Your task to perform on an android device: toggle location history Image 0: 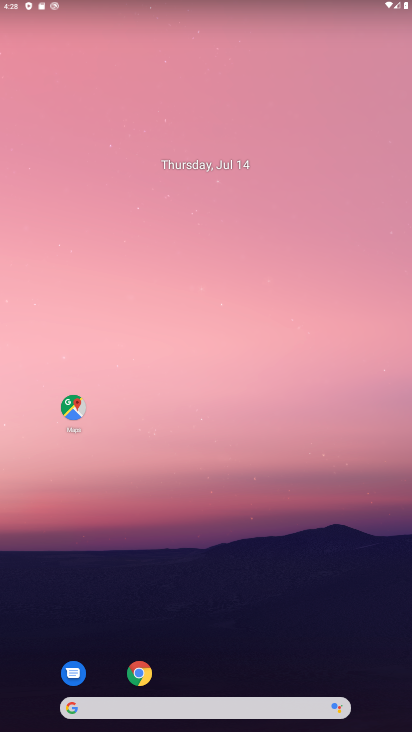
Step 0: drag from (210, 693) to (266, 144)
Your task to perform on an android device: toggle location history Image 1: 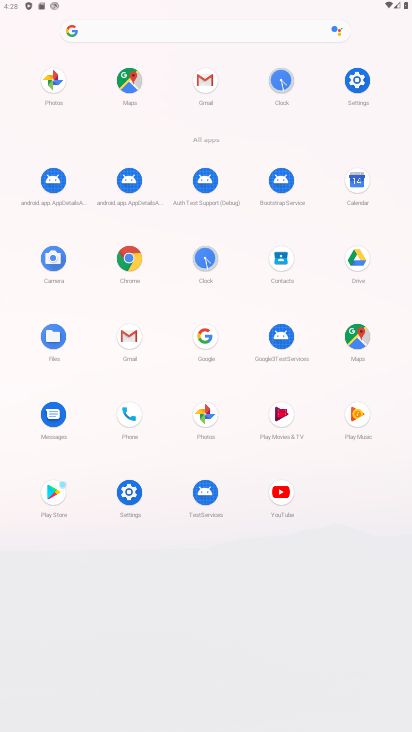
Step 1: click (134, 500)
Your task to perform on an android device: toggle location history Image 2: 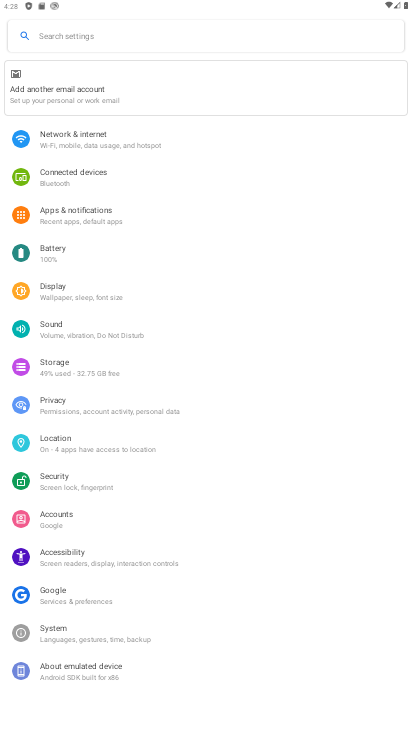
Step 2: click (81, 441)
Your task to perform on an android device: toggle location history Image 3: 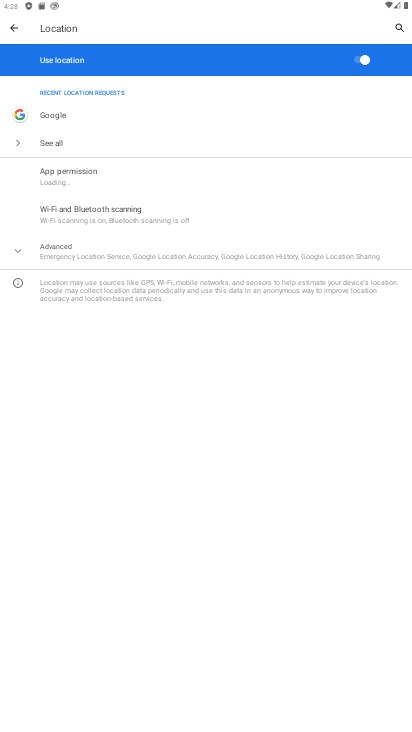
Step 3: click (151, 253)
Your task to perform on an android device: toggle location history Image 4: 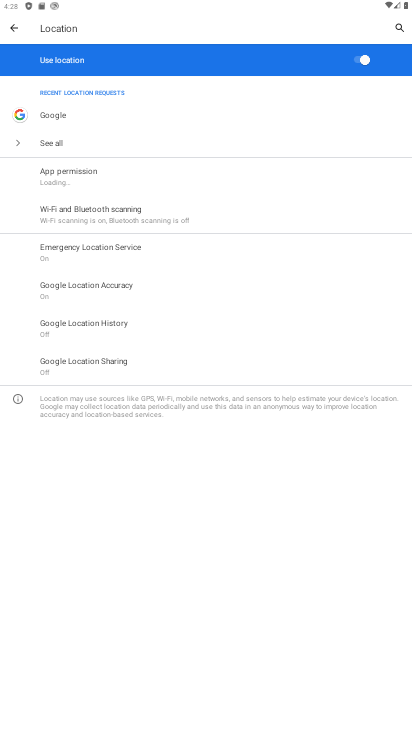
Step 4: click (115, 326)
Your task to perform on an android device: toggle location history Image 5: 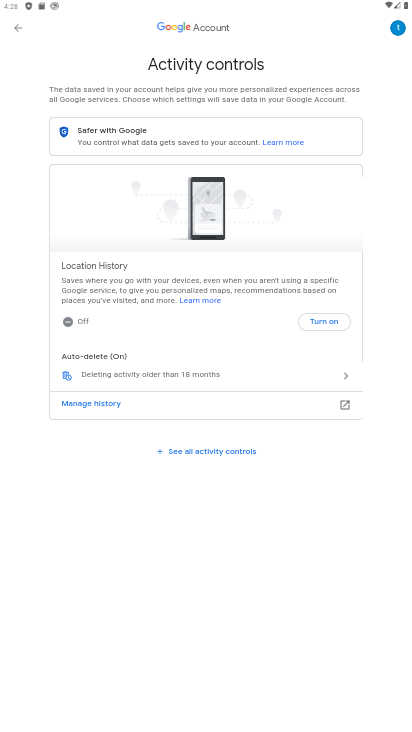
Step 5: click (331, 323)
Your task to perform on an android device: toggle location history Image 6: 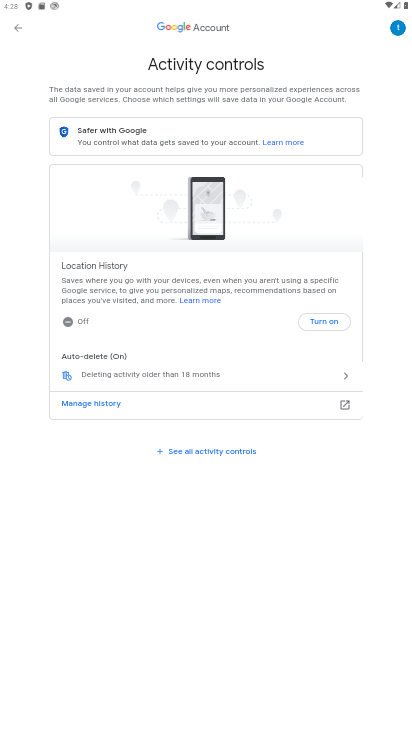
Step 6: click (331, 323)
Your task to perform on an android device: toggle location history Image 7: 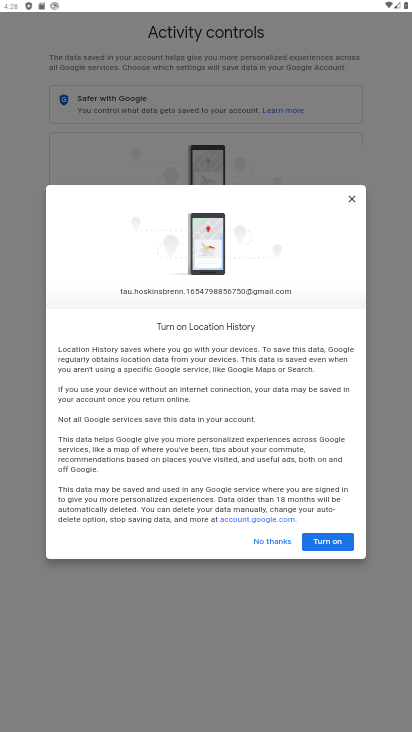
Step 7: click (321, 534)
Your task to perform on an android device: toggle location history Image 8: 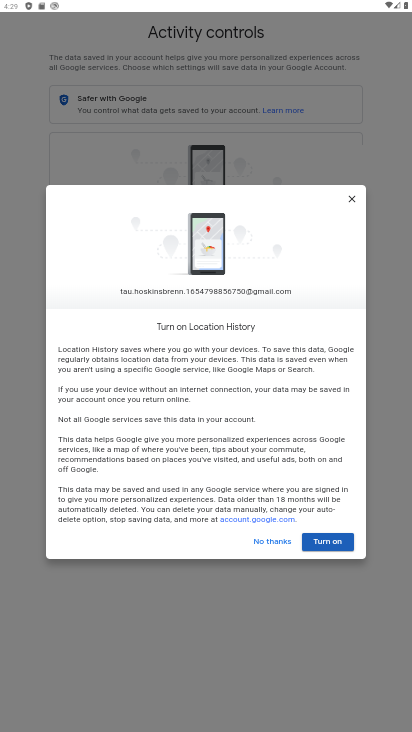
Step 8: click (321, 534)
Your task to perform on an android device: toggle location history Image 9: 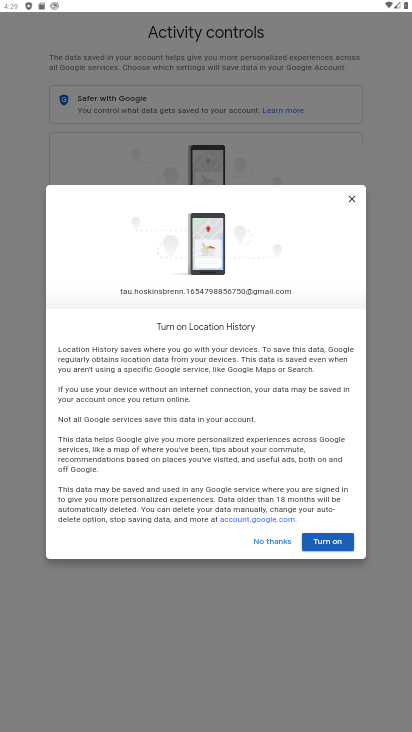
Step 9: click (317, 541)
Your task to perform on an android device: toggle location history Image 10: 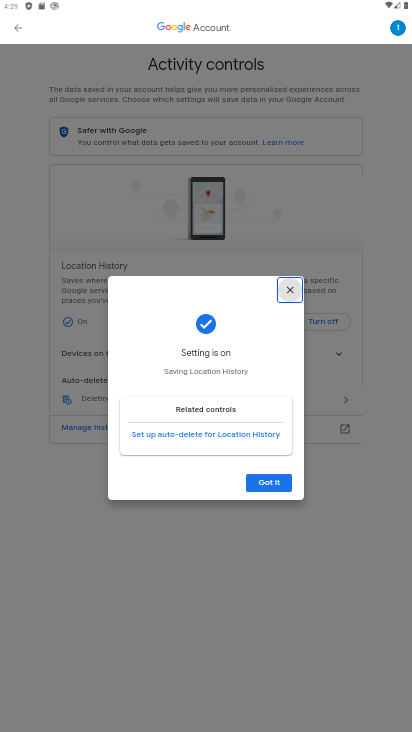
Step 10: click (273, 490)
Your task to perform on an android device: toggle location history Image 11: 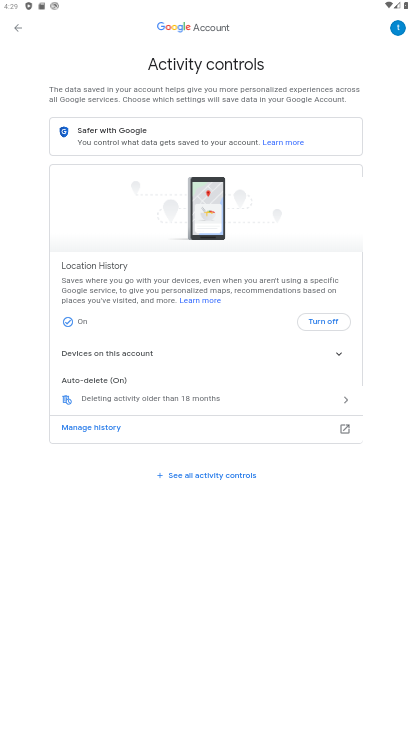
Step 11: task complete